Your task to perform on an android device: Open calendar and show me the fourth week of next month Image 0: 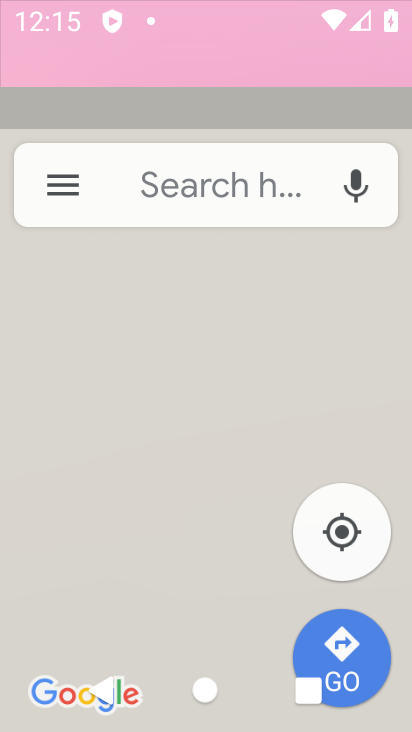
Step 0: click (89, 322)
Your task to perform on an android device: Open calendar and show me the fourth week of next month Image 1: 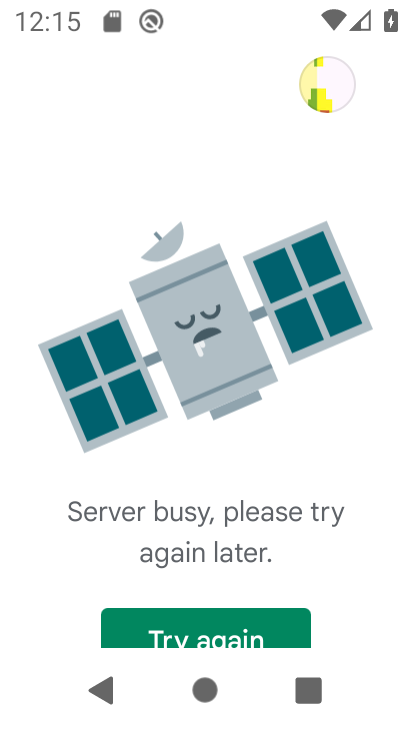
Step 1: click (162, 643)
Your task to perform on an android device: Open calendar and show me the fourth week of next month Image 2: 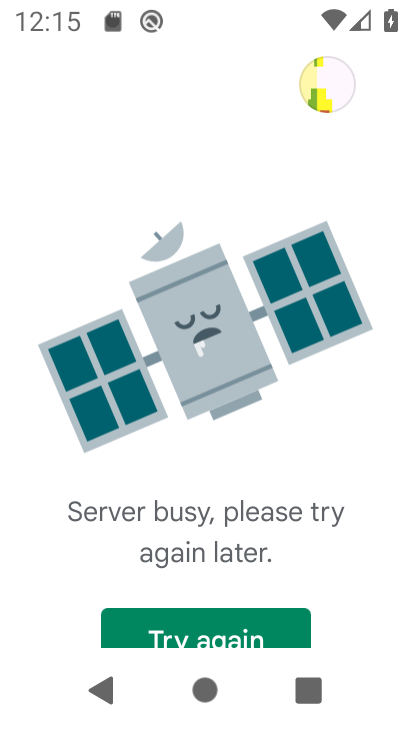
Step 2: click (162, 643)
Your task to perform on an android device: Open calendar and show me the fourth week of next month Image 3: 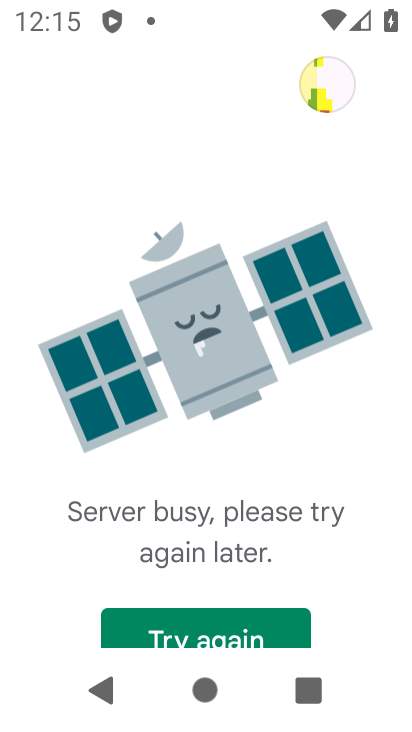
Step 3: press home button
Your task to perform on an android device: Open calendar and show me the fourth week of next month Image 4: 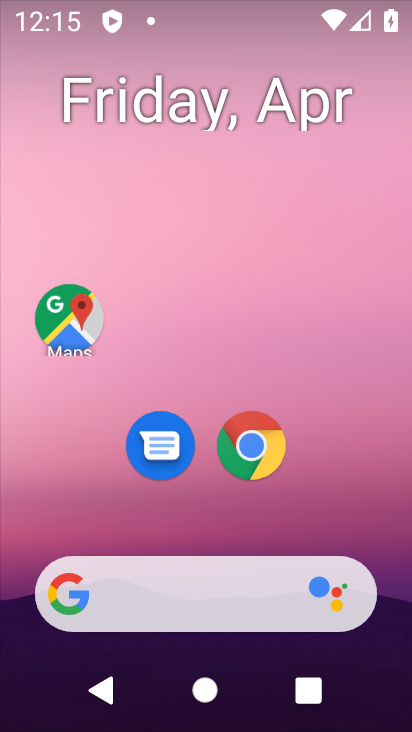
Step 4: drag from (365, 492) to (335, 46)
Your task to perform on an android device: Open calendar and show me the fourth week of next month Image 5: 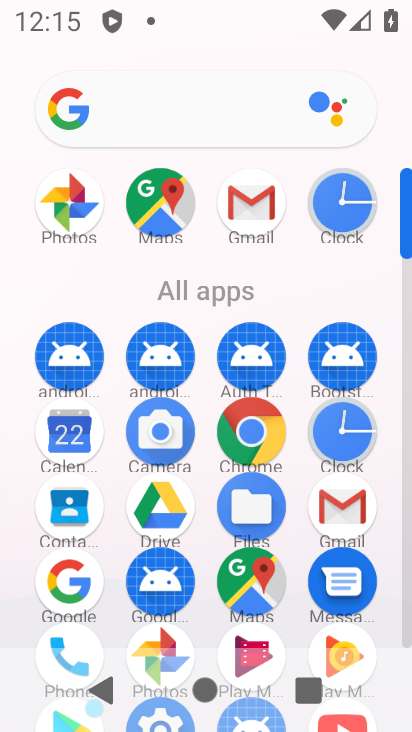
Step 5: click (409, 597)
Your task to perform on an android device: Open calendar and show me the fourth week of next month Image 6: 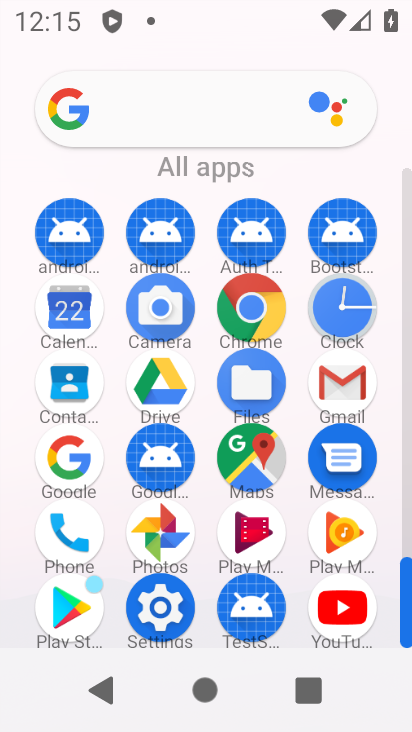
Step 6: click (131, 618)
Your task to perform on an android device: Open calendar and show me the fourth week of next month Image 7: 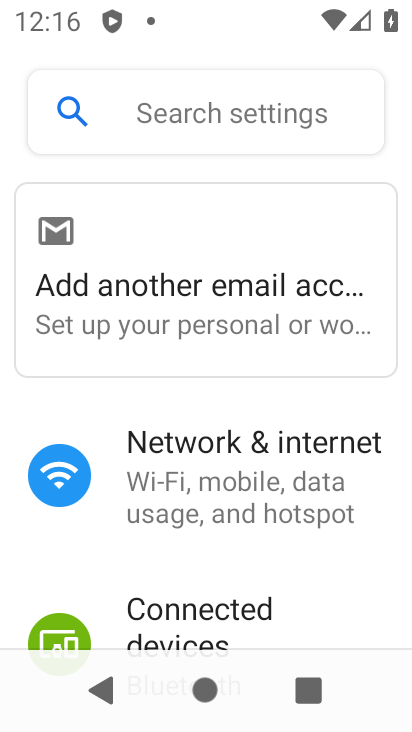
Step 7: drag from (320, 583) to (327, 299)
Your task to perform on an android device: Open calendar and show me the fourth week of next month Image 8: 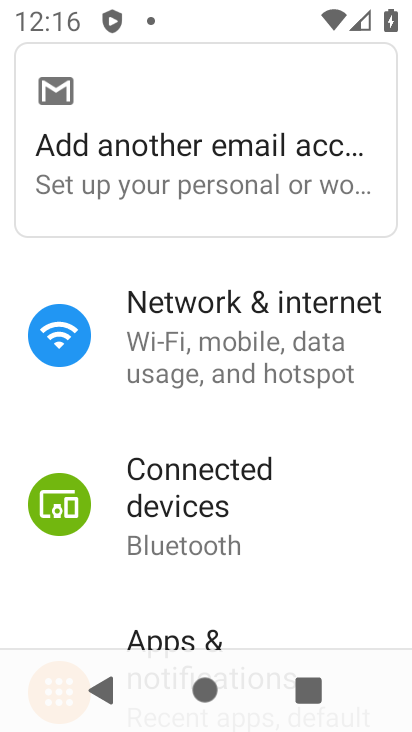
Step 8: press home button
Your task to perform on an android device: Open calendar and show me the fourth week of next month Image 9: 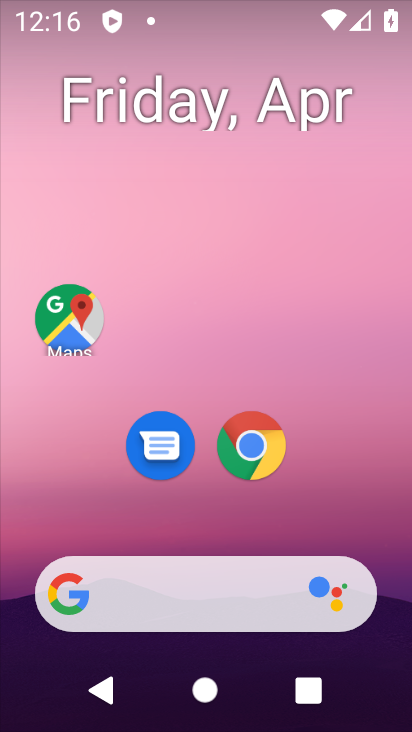
Step 9: drag from (367, 501) to (248, 48)
Your task to perform on an android device: Open calendar and show me the fourth week of next month Image 10: 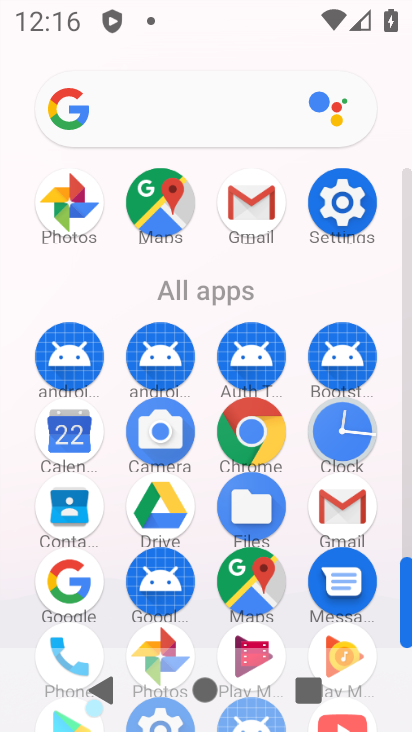
Step 10: click (66, 426)
Your task to perform on an android device: Open calendar and show me the fourth week of next month Image 11: 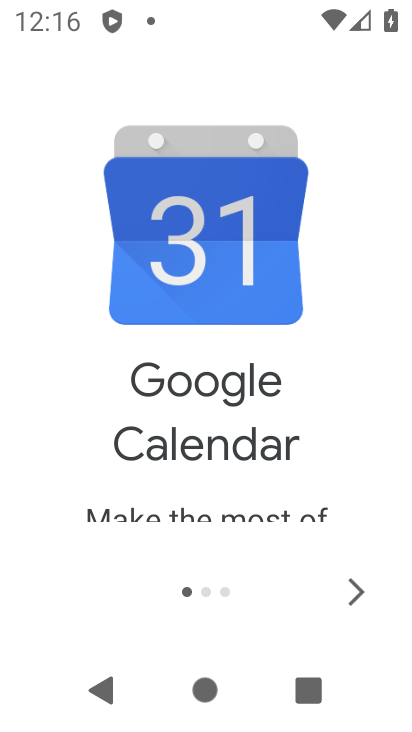
Step 11: click (359, 605)
Your task to perform on an android device: Open calendar and show me the fourth week of next month Image 12: 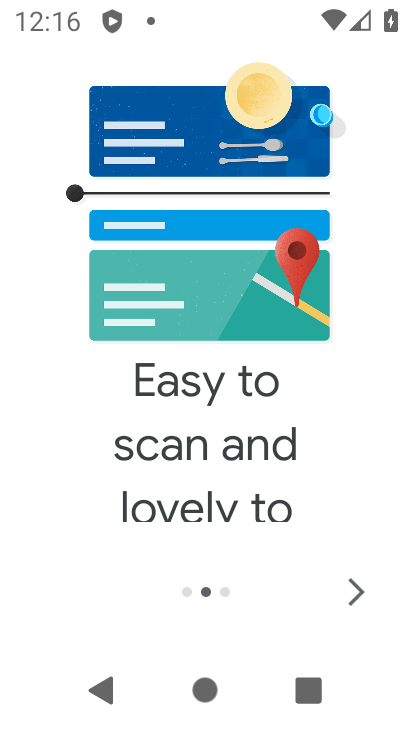
Step 12: click (359, 605)
Your task to perform on an android device: Open calendar and show me the fourth week of next month Image 13: 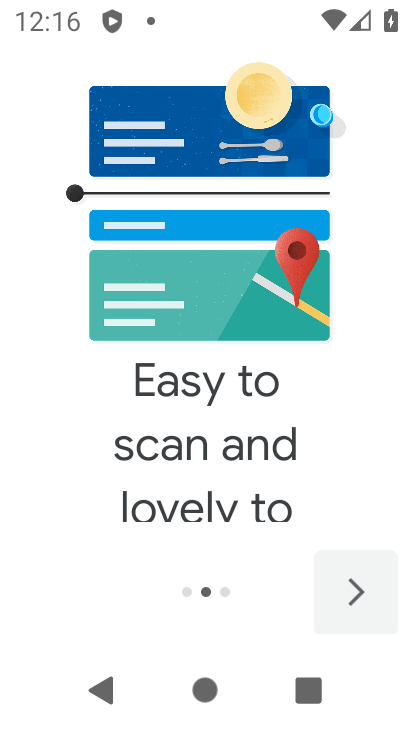
Step 13: click (359, 605)
Your task to perform on an android device: Open calendar and show me the fourth week of next month Image 14: 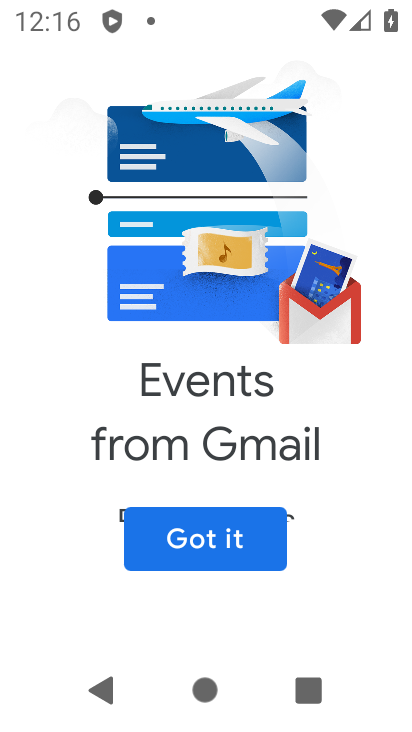
Step 14: click (197, 527)
Your task to perform on an android device: Open calendar and show me the fourth week of next month Image 15: 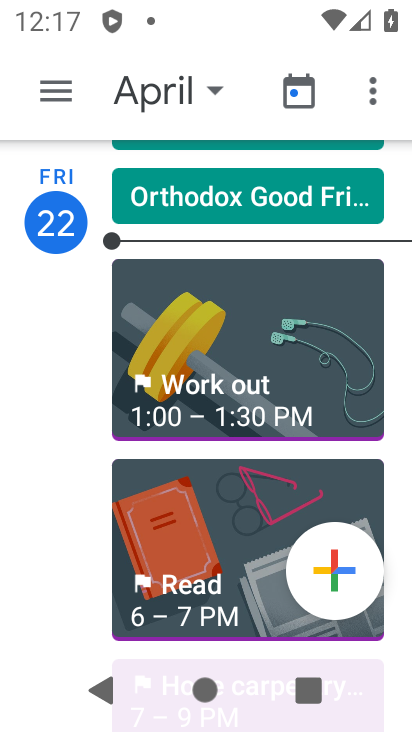
Step 15: click (165, 89)
Your task to perform on an android device: Open calendar and show me the fourth week of next month Image 16: 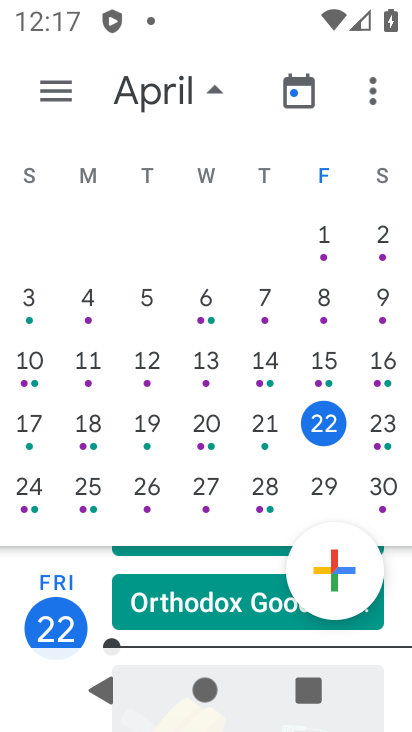
Step 16: drag from (407, 329) to (5, 298)
Your task to perform on an android device: Open calendar and show me the fourth week of next month Image 17: 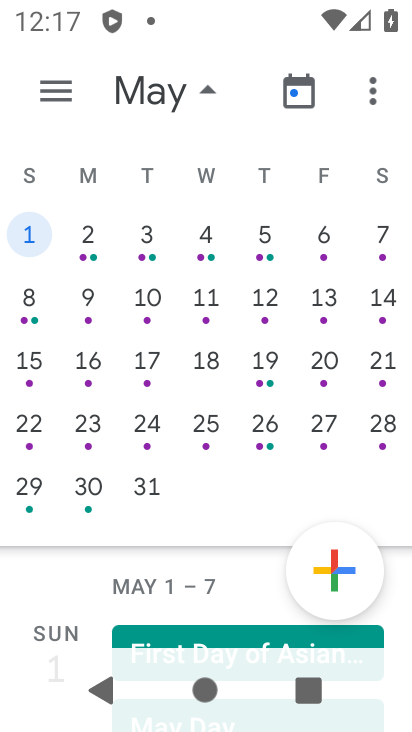
Step 17: click (210, 415)
Your task to perform on an android device: Open calendar and show me the fourth week of next month Image 18: 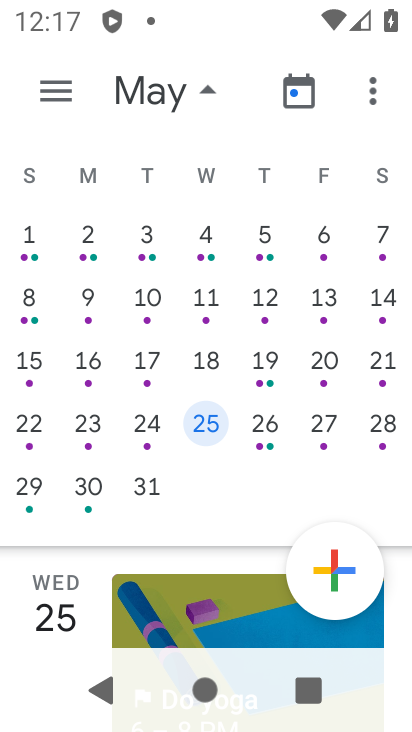
Step 18: task complete